Your task to perform on an android device: turn off notifications in google photos Image 0: 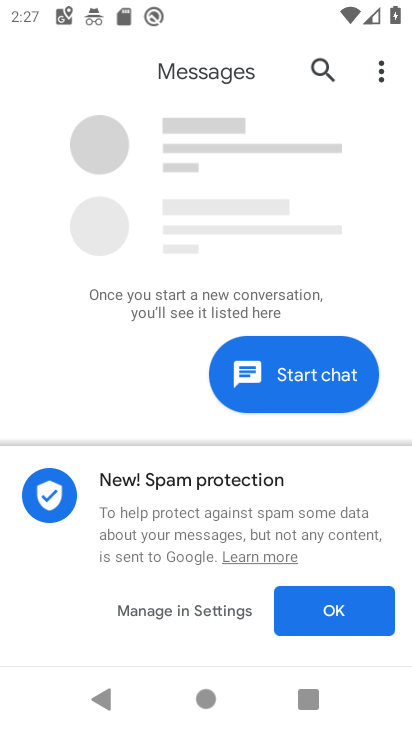
Step 0: press home button
Your task to perform on an android device: turn off notifications in google photos Image 1: 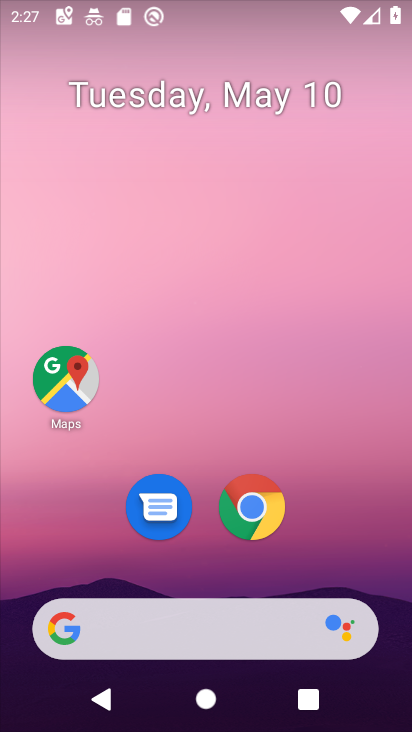
Step 1: drag from (129, 538) to (157, 218)
Your task to perform on an android device: turn off notifications in google photos Image 2: 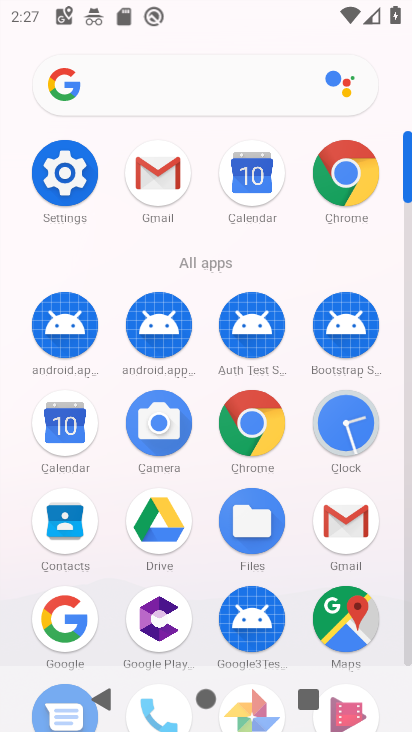
Step 2: drag from (201, 662) to (229, 382)
Your task to perform on an android device: turn off notifications in google photos Image 3: 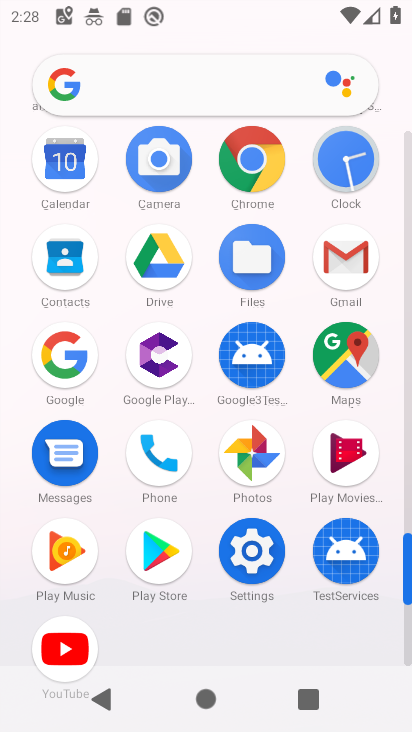
Step 3: click (254, 454)
Your task to perform on an android device: turn off notifications in google photos Image 4: 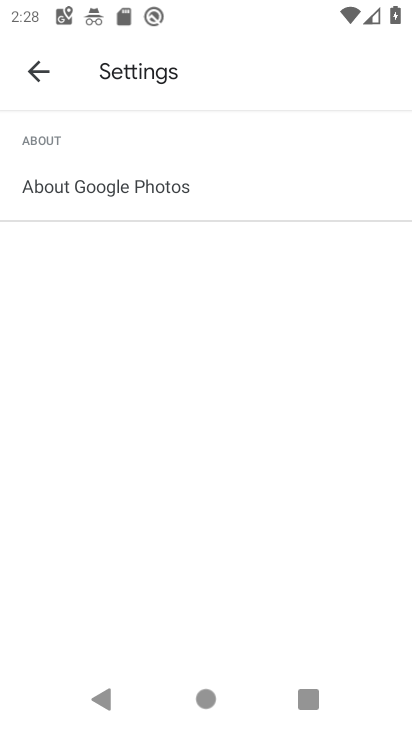
Step 4: click (27, 68)
Your task to perform on an android device: turn off notifications in google photos Image 5: 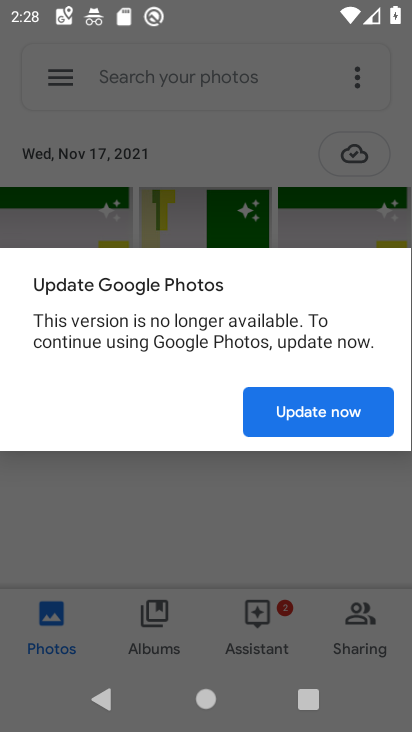
Step 5: click (288, 439)
Your task to perform on an android device: turn off notifications in google photos Image 6: 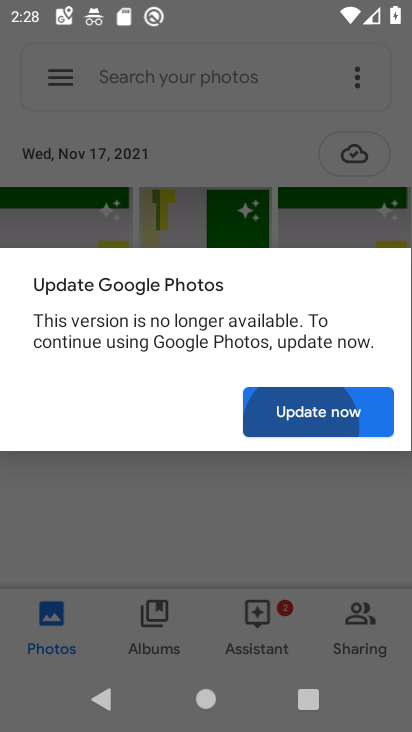
Step 6: click (294, 406)
Your task to perform on an android device: turn off notifications in google photos Image 7: 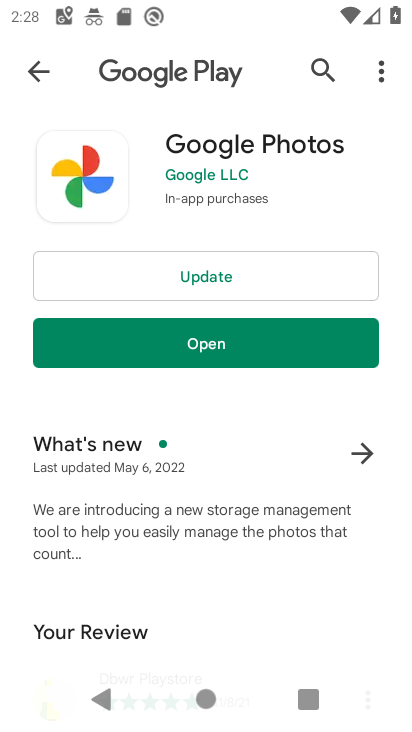
Step 7: click (174, 267)
Your task to perform on an android device: turn off notifications in google photos Image 8: 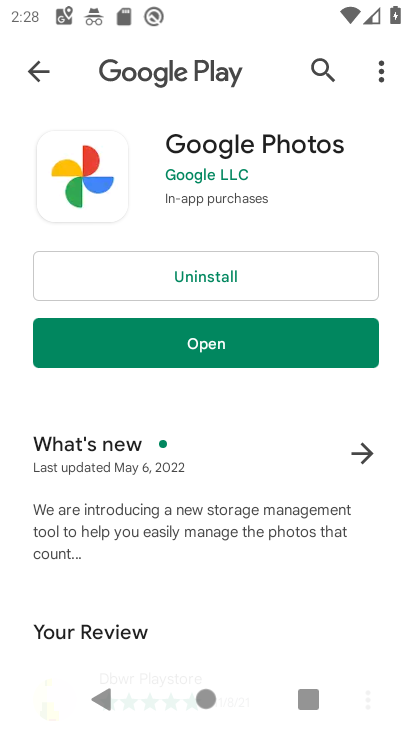
Step 8: click (197, 345)
Your task to perform on an android device: turn off notifications in google photos Image 9: 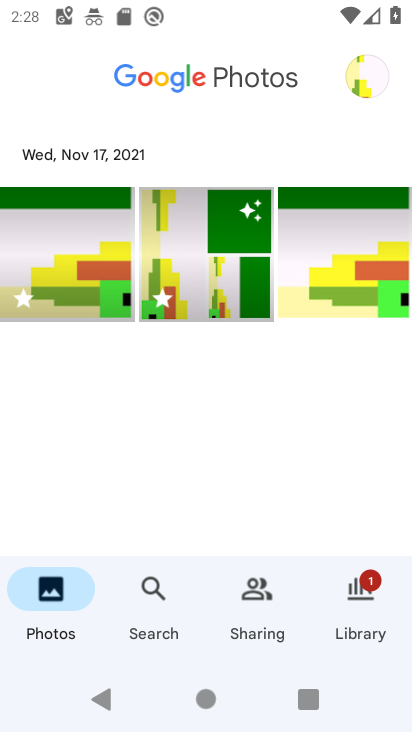
Step 9: click (368, 71)
Your task to perform on an android device: turn off notifications in google photos Image 10: 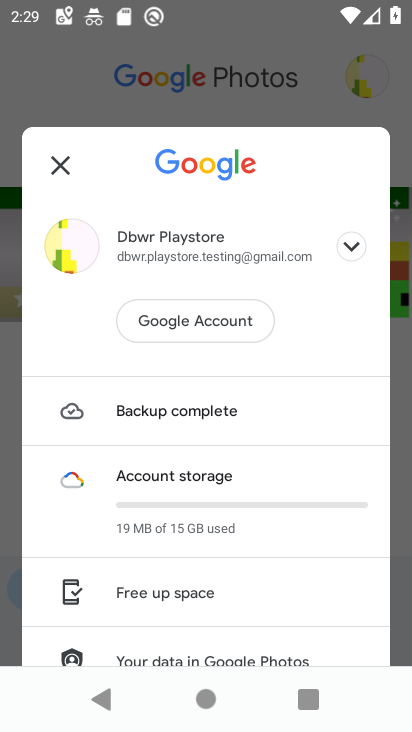
Step 10: drag from (204, 573) to (227, 314)
Your task to perform on an android device: turn off notifications in google photos Image 11: 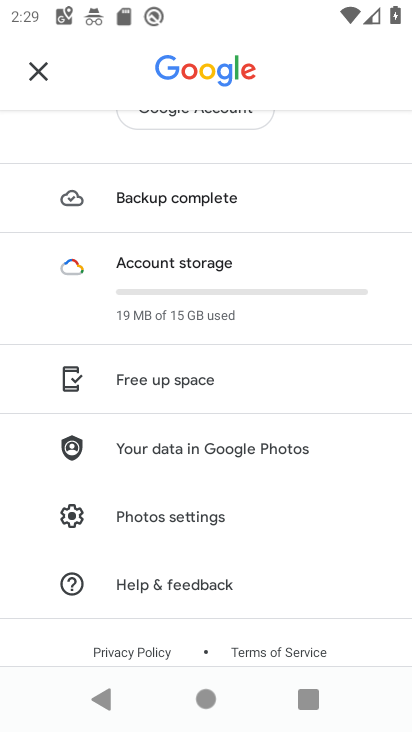
Step 11: click (169, 517)
Your task to perform on an android device: turn off notifications in google photos Image 12: 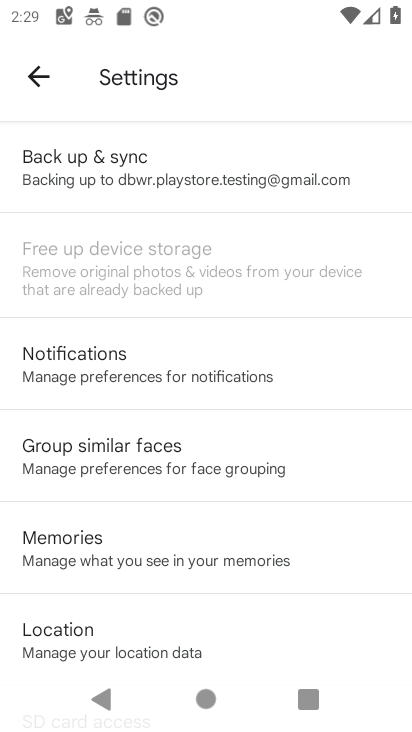
Step 12: click (167, 358)
Your task to perform on an android device: turn off notifications in google photos Image 13: 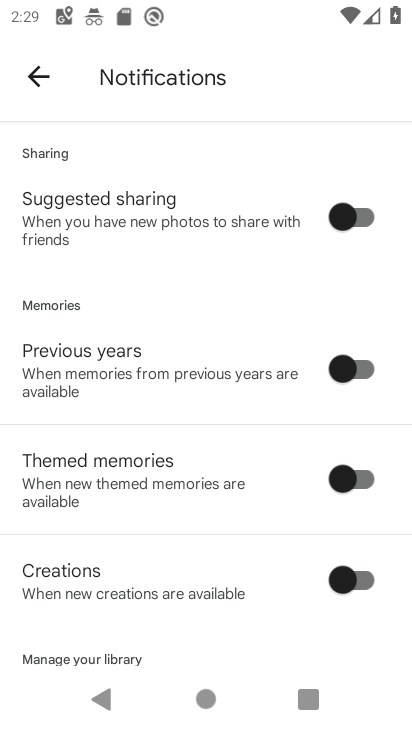
Step 13: task complete